Your task to perform on an android device: What's the weather going to be this weekend? Image 0: 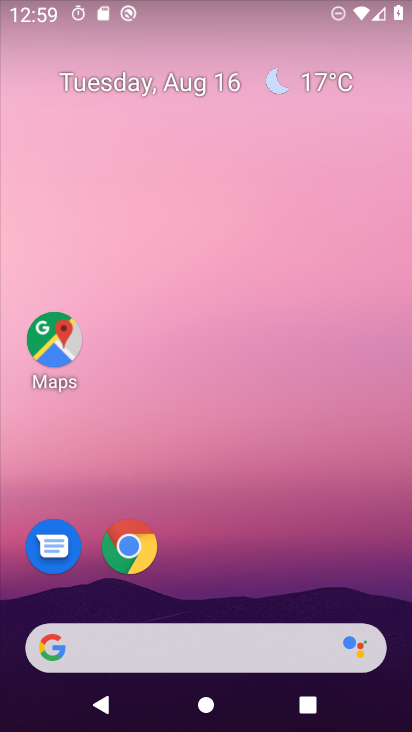
Step 0: drag from (229, 585) to (212, 97)
Your task to perform on an android device: What's the weather going to be this weekend? Image 1: 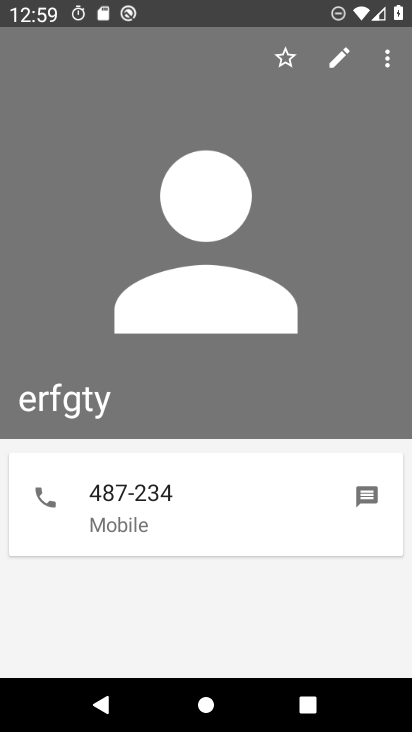
Step 1: press home button
Your task to perform on an android device: What's the weather going to be this weekend? Image 2: 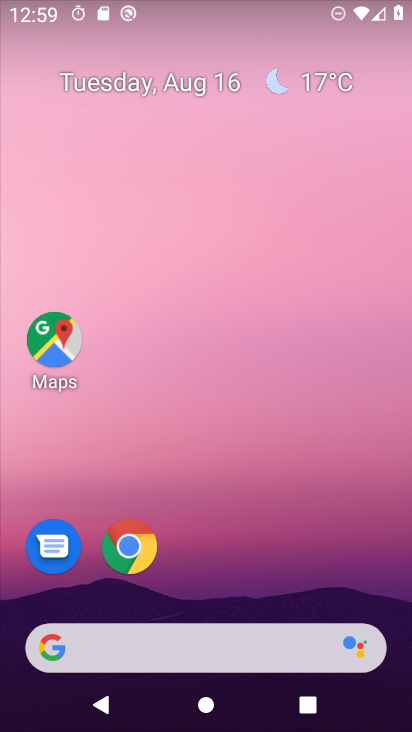
Step 2: drag from (207, 567) to (203, 120)
Your task to perform on an android device: What's the weather going to be this weekend? Image 3: 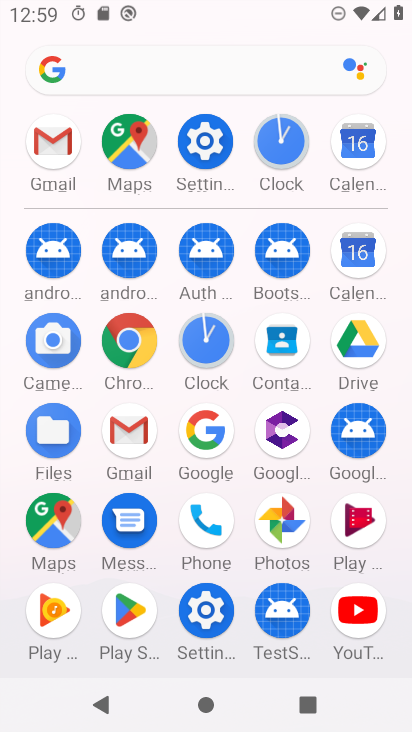
Step 3: click (200, 430)
Your task to perform on an android device: What's the weather going to be this weekend? Image 4: 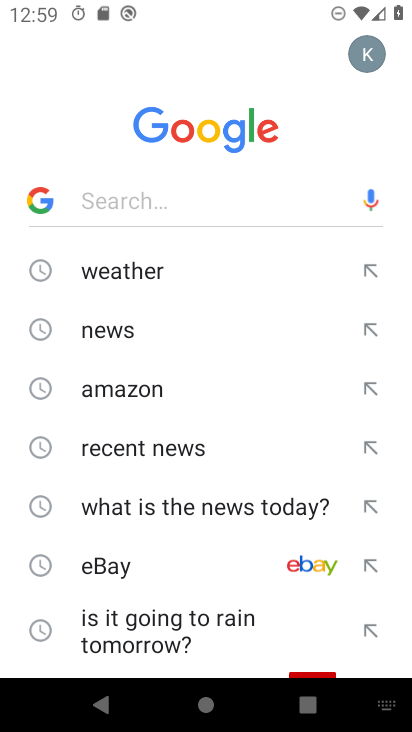
Step 4: click (124, 266)
Your task to perform on an android device: What's the weather going to be this weekend? Image 5: 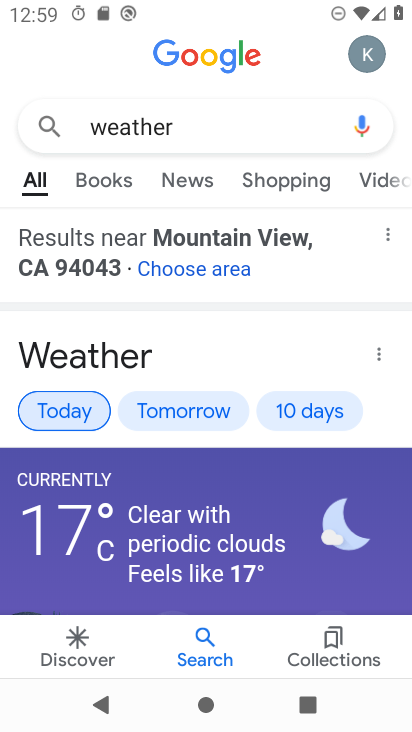
Step 5: click (306, 408)
Your task to perform on an android device: What's the weather going to be this weekend? Image 6: 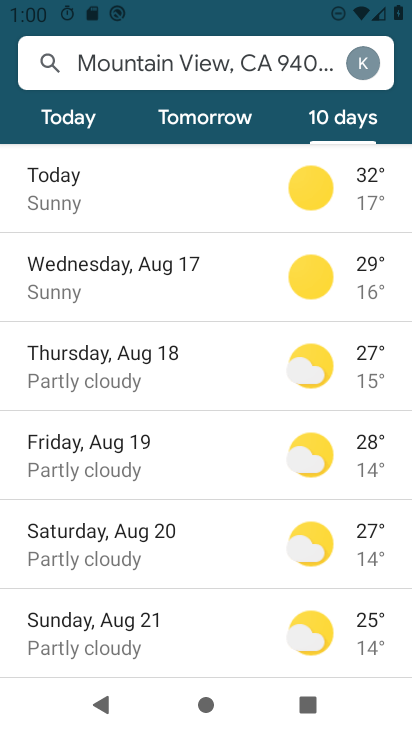
Step 6: click (69, 544)
Your task to perform on an android device: What's the weather going to be this weekend? Image 7: 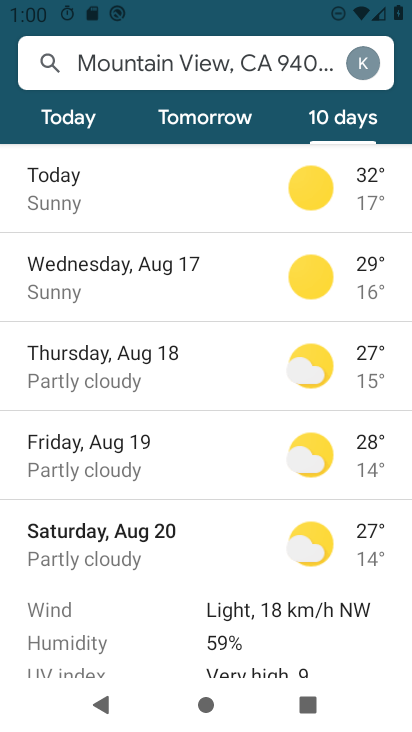
Step 7: task complete